Your task to perform on an android device: Show me popular videos on Youtube Image 0: 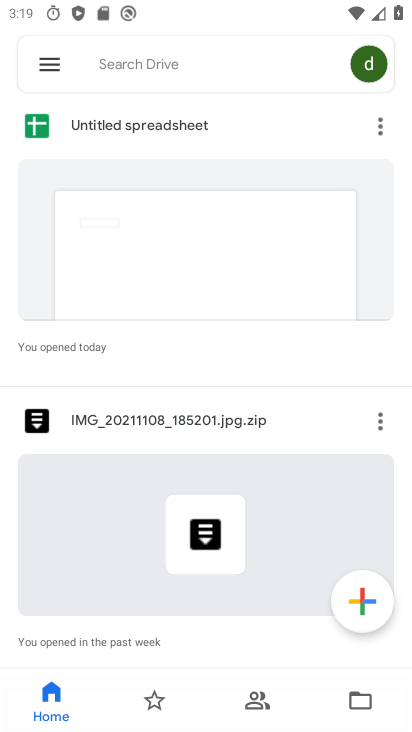
Step 0: press back button
Your task to perform on an android device: Show me popular videos on Youtube Image 1: 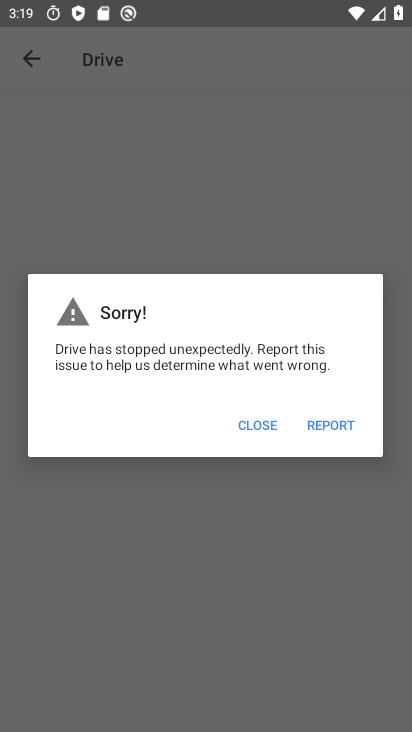
Step 1: press back button
Your task to perform on an android device: Show me popular videos on Youtube Image 2: 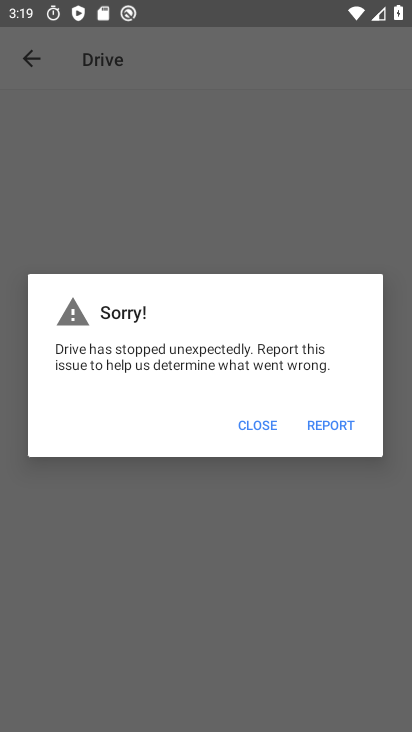
Step 2: press home button
Your task to perform on an android device: Show me popular videos on Youtube Image 3: 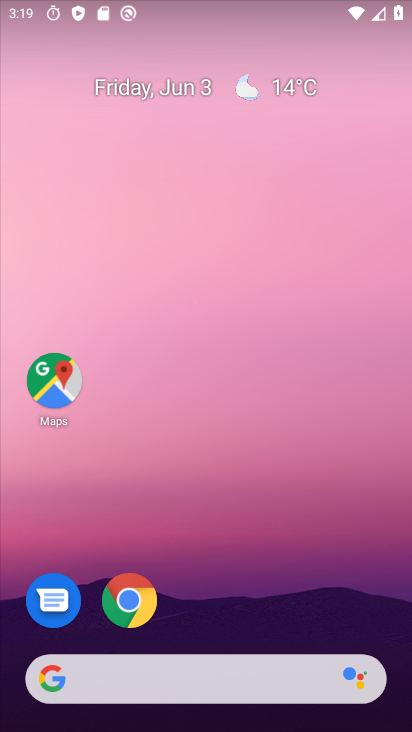
Step 3: drag from (234, 567) to (215, 8)
Your task to perform on an android device: Show me popular videos on Youtube Image 4: 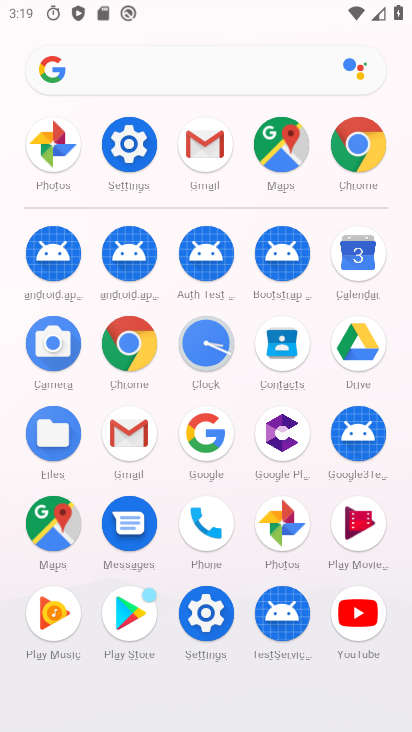
Step 4: click (365, 608)
Your task to perform on an android device: Show me popular videos on Youtube Image 5: 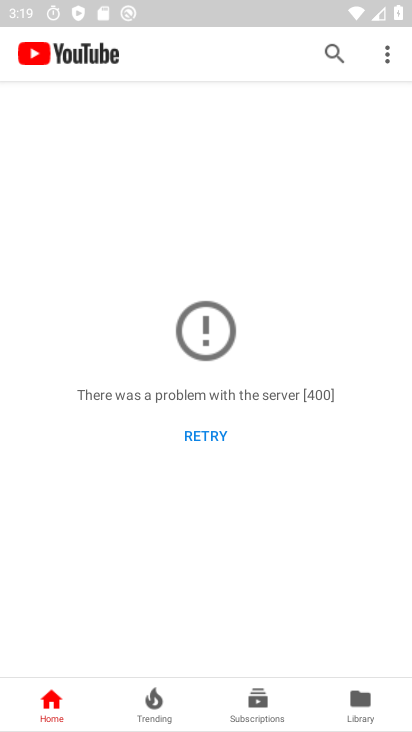
Step 5: click (332, 683)
Your task to perform on an android device: Show me popular videos on Youtube Image 6: 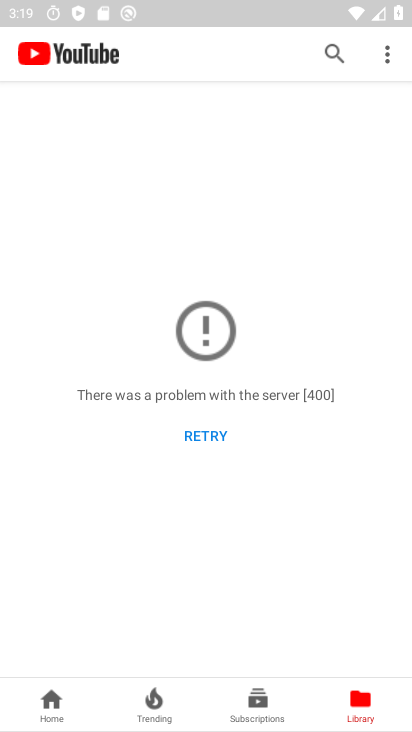
Step 6: click (66, 684)
Your task to perform on an android device: Show me popular videos on Youtube Image 7: 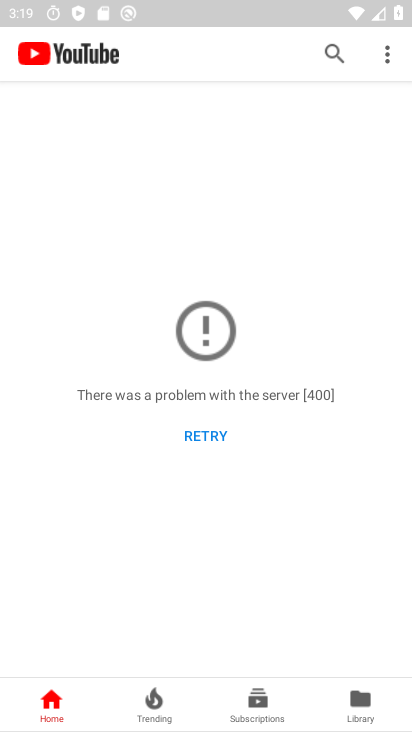
Step 7: task complete